Your task to perform on an android device: Open the web browser Image 0: 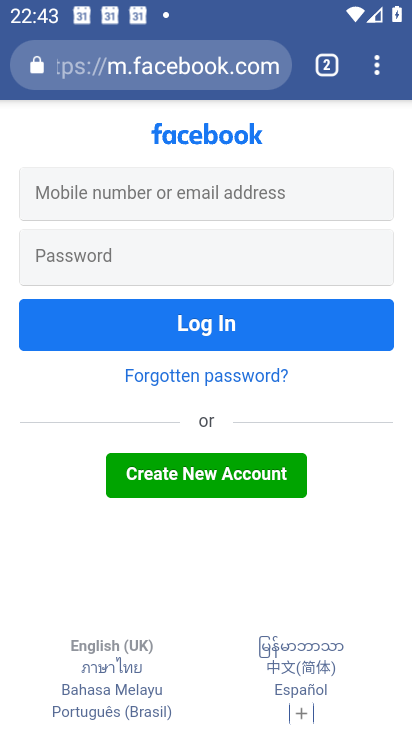
Step 0: press home button
Your task to perform on an android device: Open the web browser Image 1: 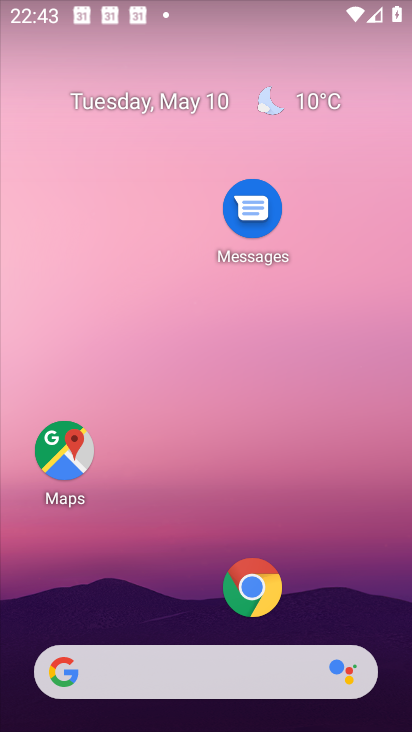
Step 1: click (261, 577)
Your task to perform on an android device: Open the web browser Image 2: 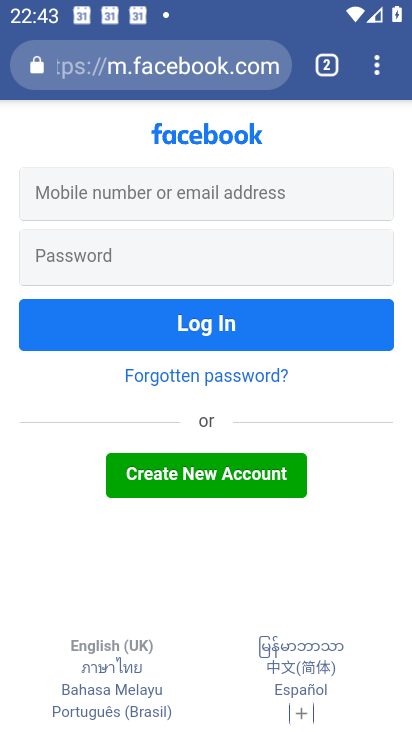
Step 2: task complete